Your task to perform on an android device: add a contact Image 0: 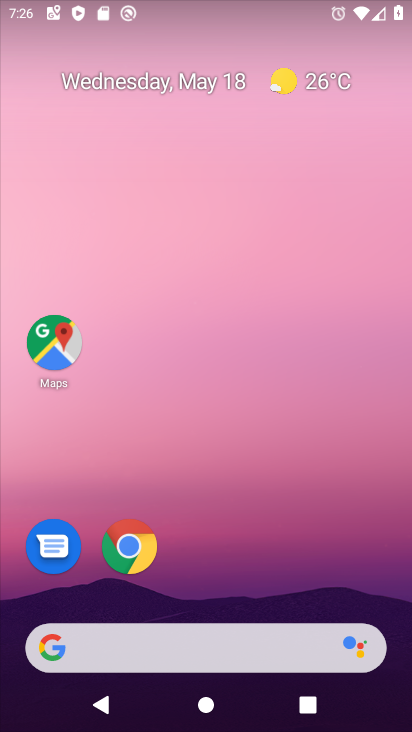
Step 0: drag from (395, 614) to (292, 67)
Your task to perform on an android device: add a contact Image 1: 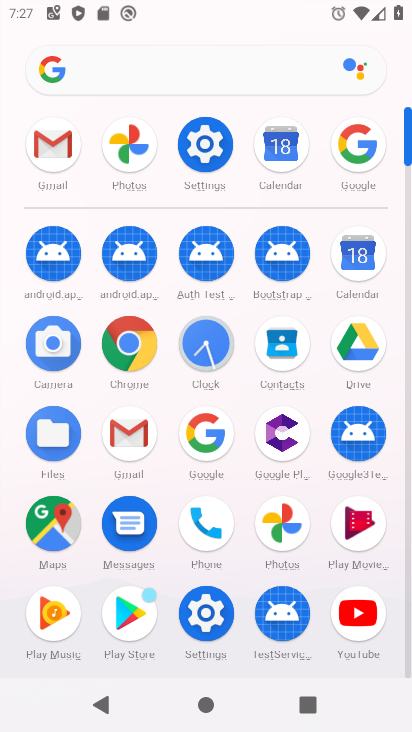
Step 1: click (288, 348)
Your task to perform on an android device: add a contact Image 2: 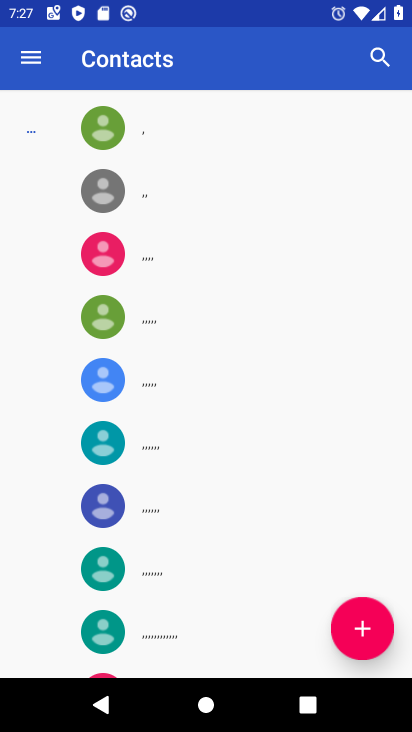
Step 2: click (354, 624)
Your task to perform on an android device: add a contact Image 3: 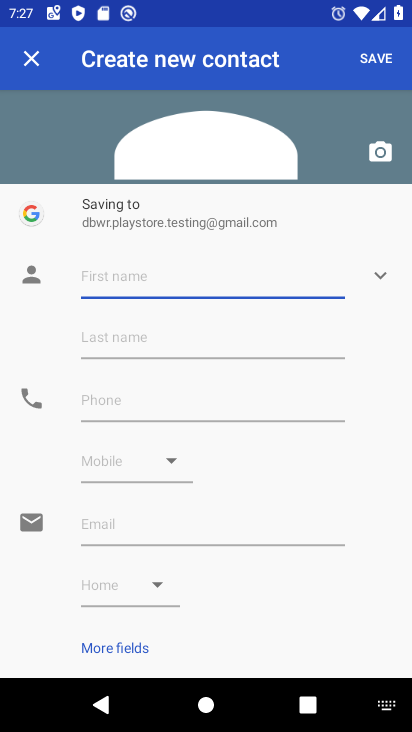
Step 3: click (178, 286)
Your task to perform on an android device: add a contact Image 4: 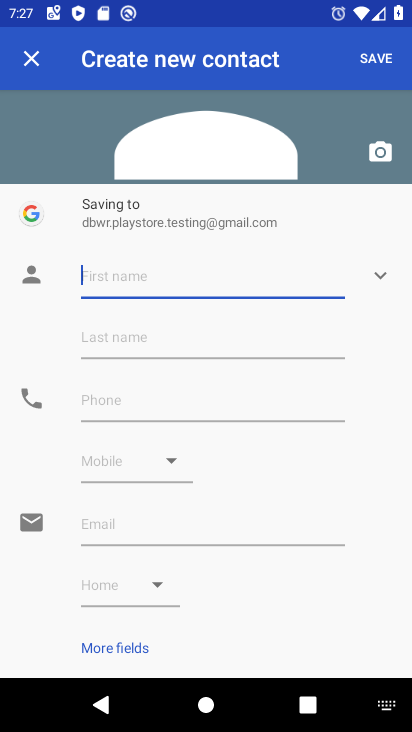
Step 4: type "piyush"
Your task to perform on an android device: add a contact Image 5: 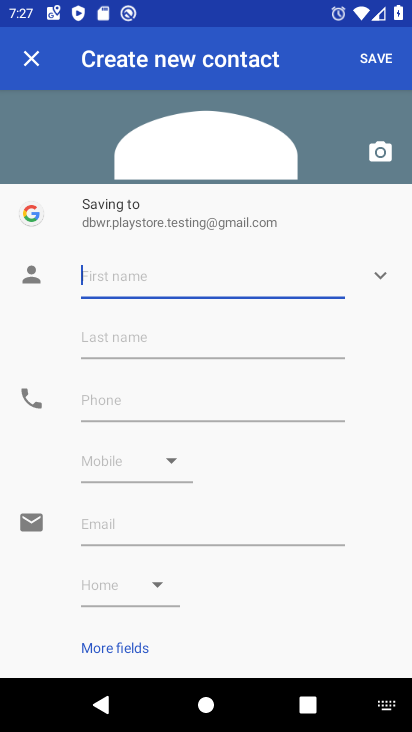
Step 5: click (399, 57)
Your task to perform on an android device: add a contact Image 6: 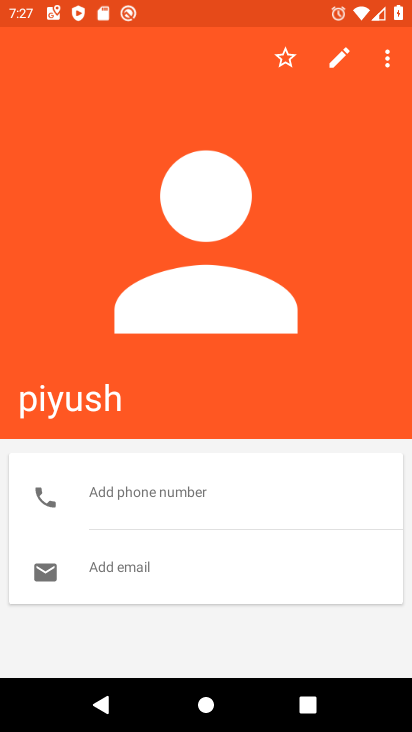
Step 6: task complete